Your task to perform on an android device: see tabs open on other devices in the chrome app Image 0: 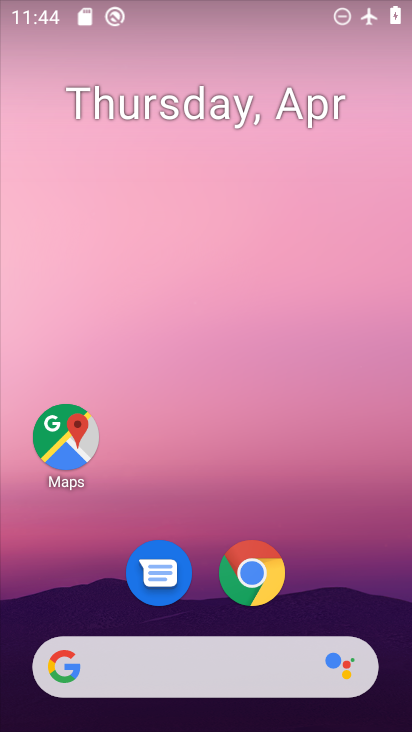
Step 0: drag from (320, 483) to (268, 112)
Your task to perform on an android device: see tabs open on other devices in the chrome app Image 1: 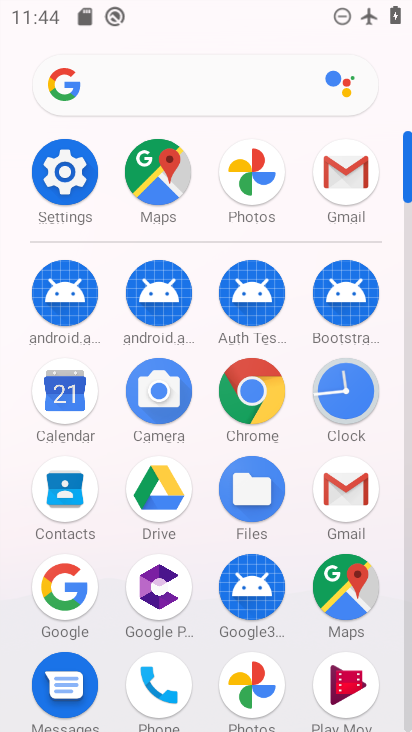
Step 1: click (247, 381)
Your task to perform on an android device: see tabs open on other devices in the chrome app Image 2: 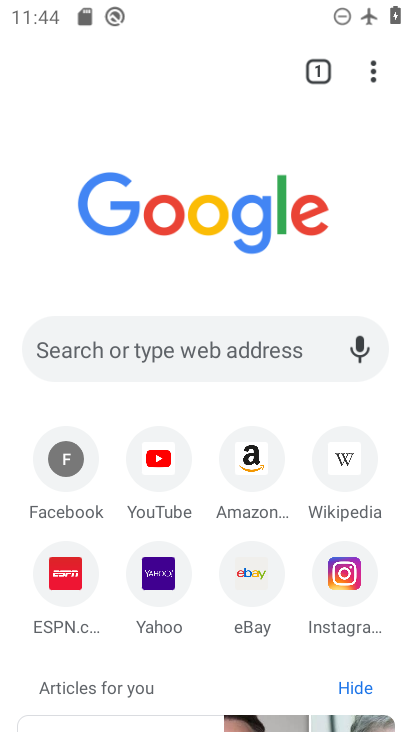
Step 2: click (375, 65)
Your task to perform on an android device: see tabs open on other devices in the chrome app Image 3: 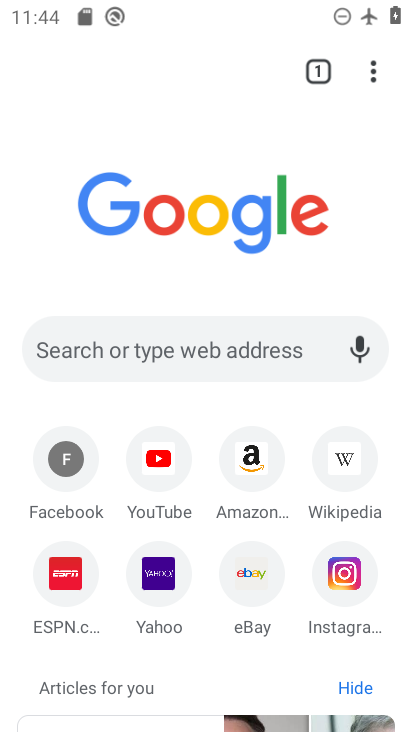
Step 3: click (365, 72)
Your task to perform on an android device: see tabs open on other devices in the chrome app Image 4: 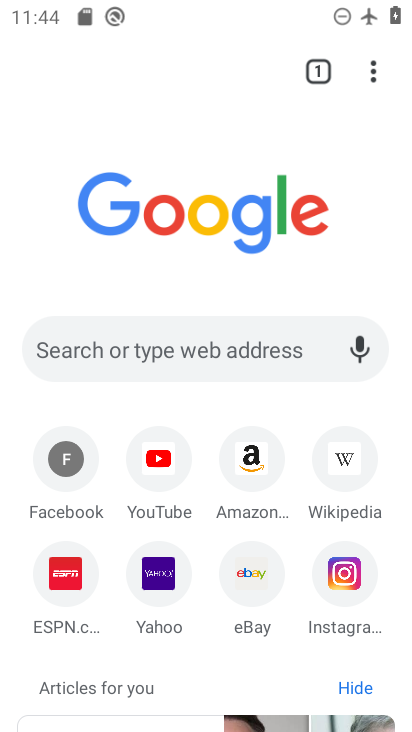
Step 4: click (371, 74)
Your task to perform on an android device: see tabs open on other devices in the chrome app Image 5: 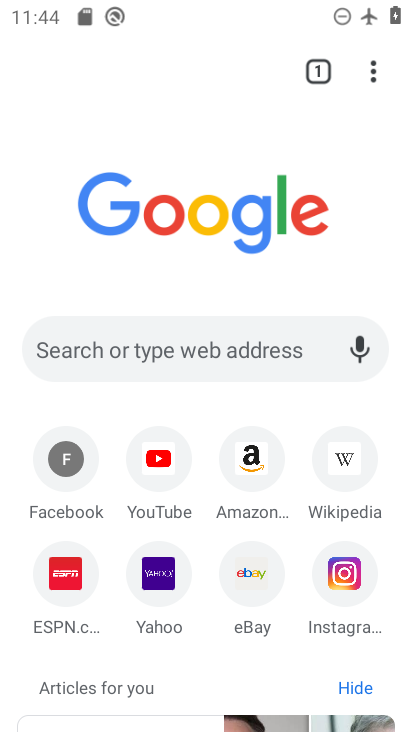
Step 5: click (373, 65)
Your task to perform on an android device: see tabs open on other devices in the chrome app Image 6: 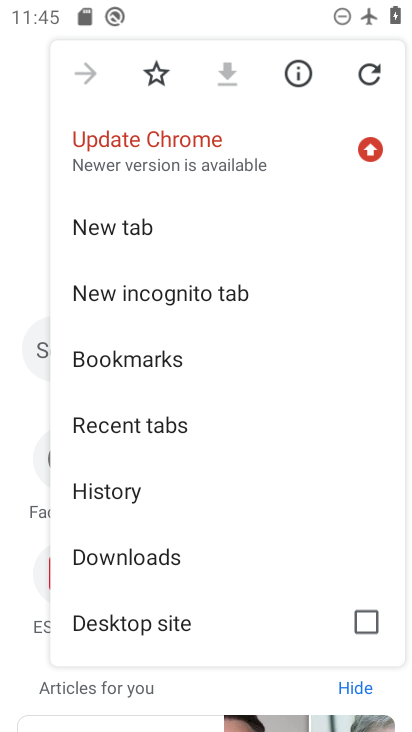
Step 6: click (148, 430)
Your task to perform on an android device: see tabs open on other devices in the chrome app Image 7: 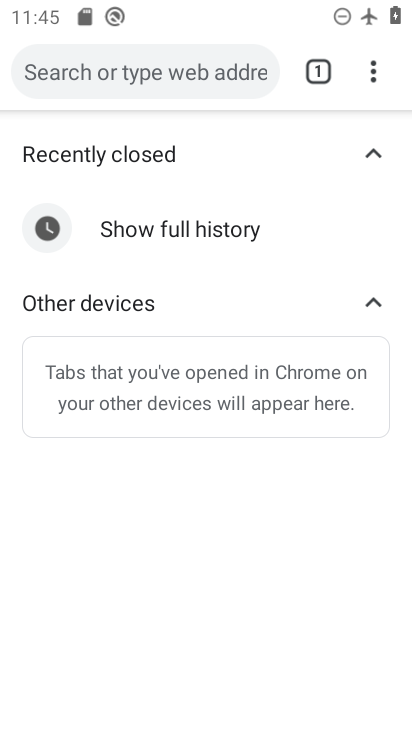
Step 7: click (366, 298)
Your task to perform on an android device: see tabs open on other devices in the chrome app Image 8: 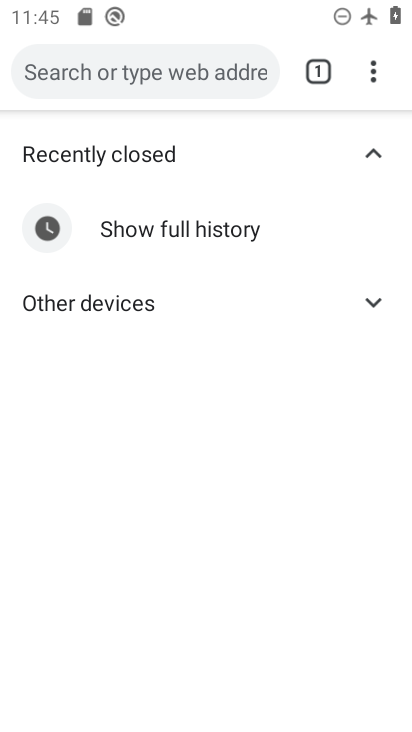
Step 8: click (366, 298)
Your task to perform on an android device: see tabs open on other devices in the chrome app Image 9: 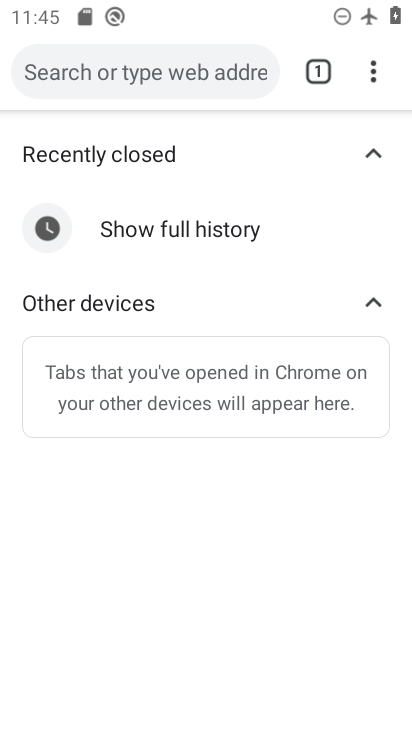
Step 9: task complete